Your task to perform on an android device: turn off translation in the chrome app Image 0: 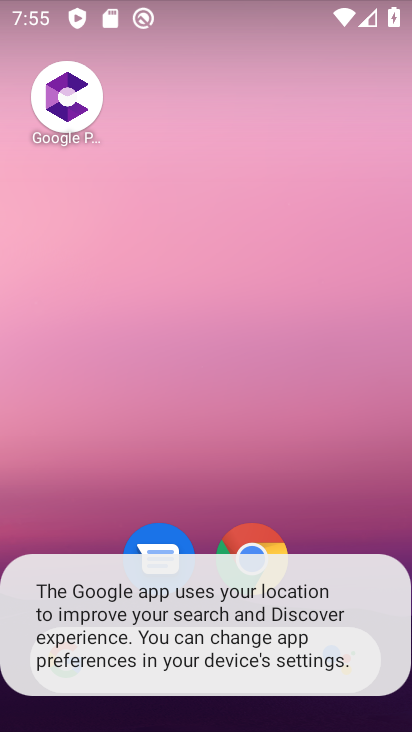
Step 0: click (262, 547)
Your task to perform on an android device: turn off translation in the chrome app Image 1: 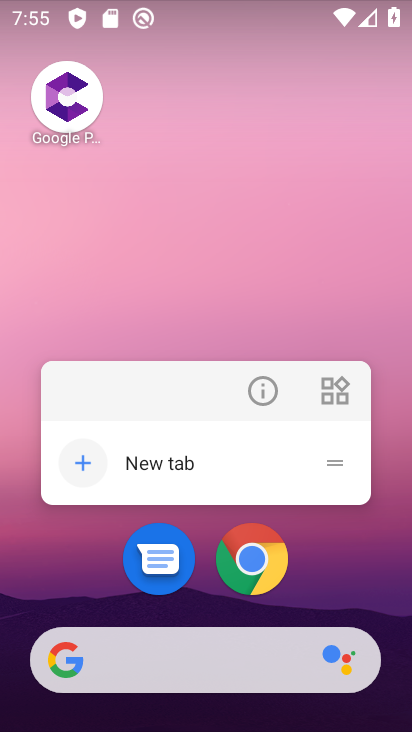
Step 1: click (245, 537)
Your task to perform on an android device: turn off translation in the chrome app Image 2: 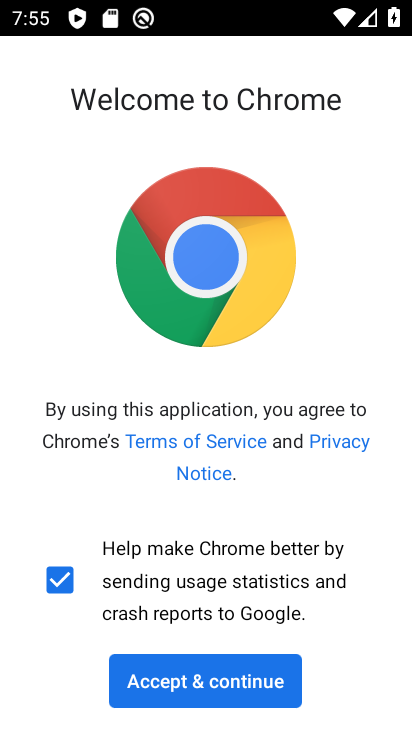
Step 2: click (189, 688)
Your task to perform on an android device: turn off translation in the chrome app Image 3: 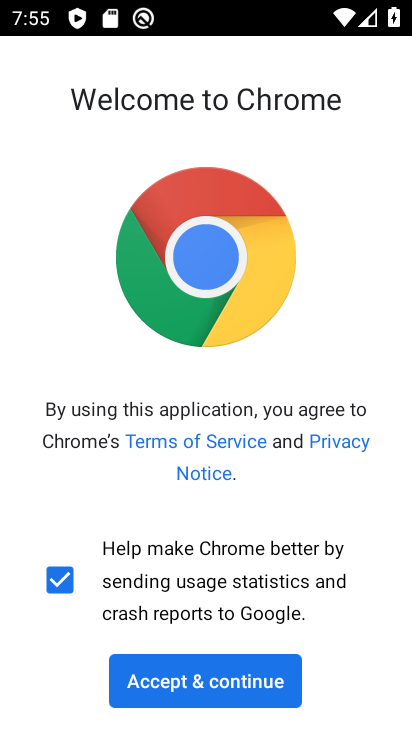
Step 3: click (189, 688)
Your task to perform on an android device: turn off translation in the chrome app Image 4: 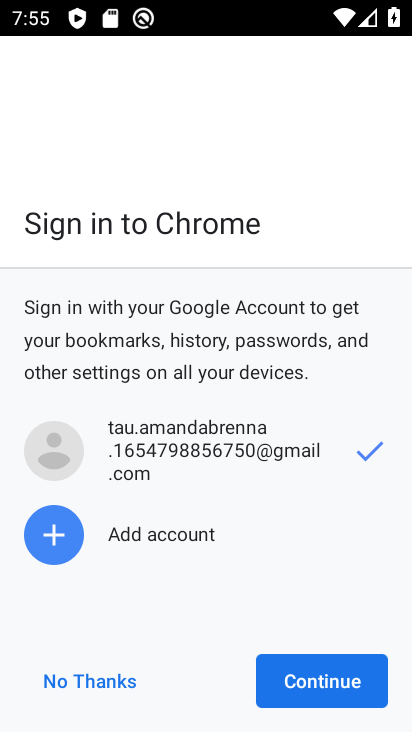
Step 4: click (98, 696)
Your task to perform on an android device: turn off translation in the chrome app Image 5: 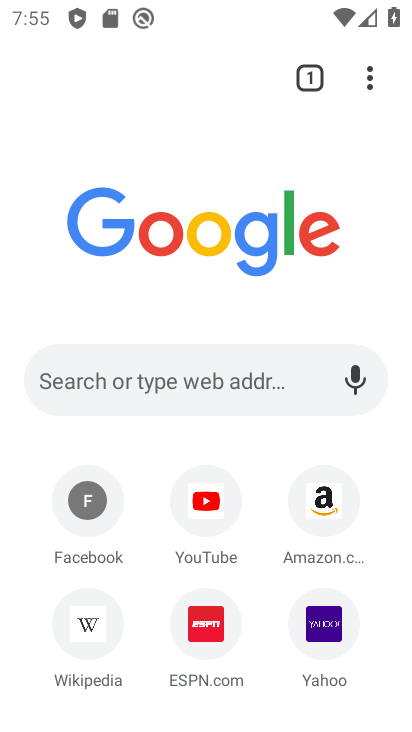
Step 5: click (377, 76)
Your task to perform on an android device: turn off translation in the chrome app Image 6: 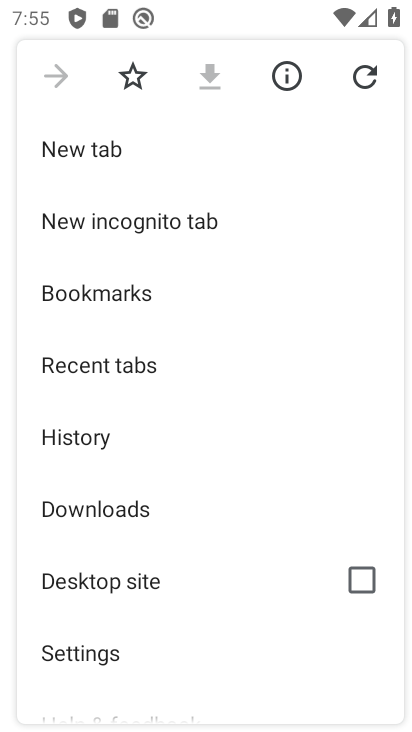
Step 6: click (113, 641)
Your task to perform on an android device: turn off translation in the chrome app Image 7: 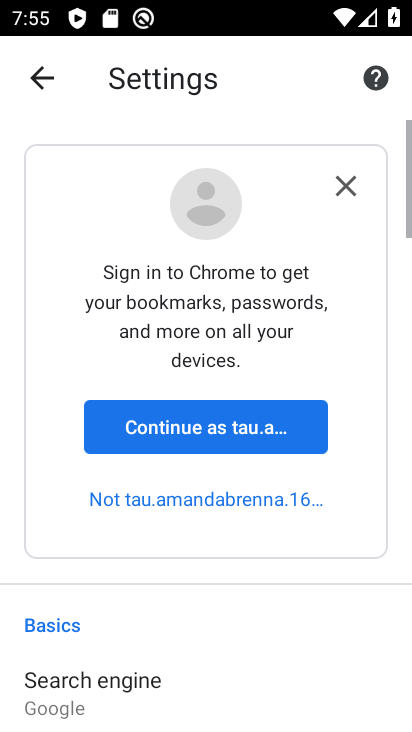
Step 7: drag from (141, 669) to (251, 72)
Your task to perform on an android device: turn off translation in the chrome app Image 8: 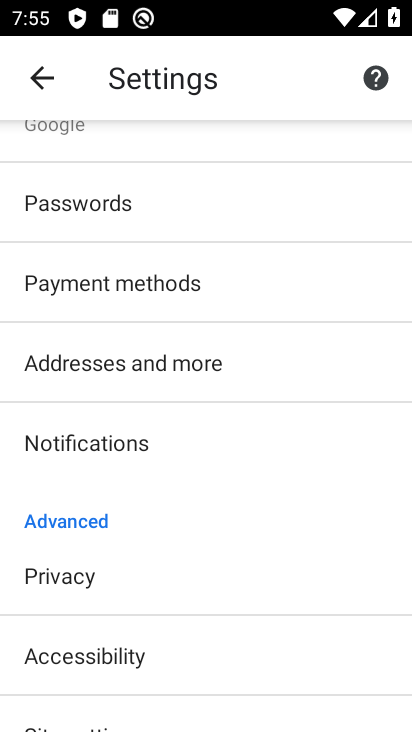
Step 8: drag from (140, 655) to (228, 335)
Your task to perform on an android device: turn off translation in the chrome app Image 9: 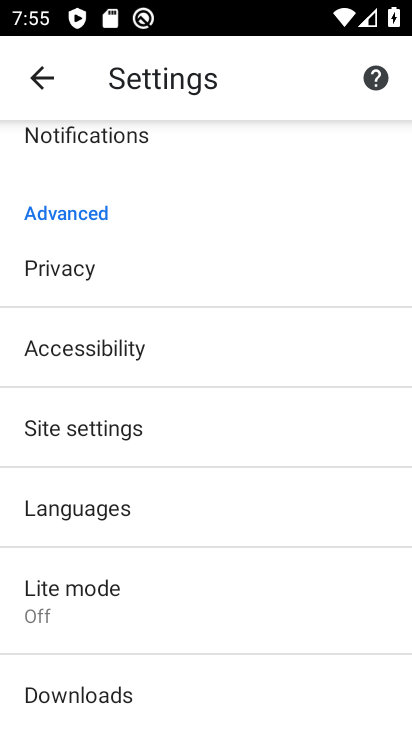
Step 9: click (141, 508)
Your task to perform on an android device: turn off translation in the chrome app Image 10: 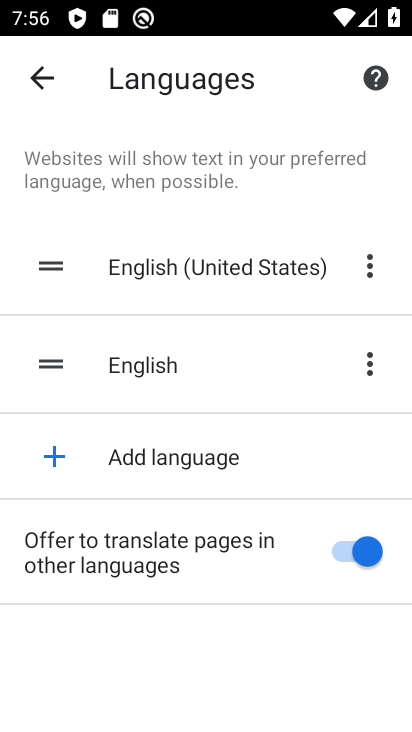
Step 10: click (376, 553)
Your task to perform on an android device: turn off translation in the chrome app Image 11: 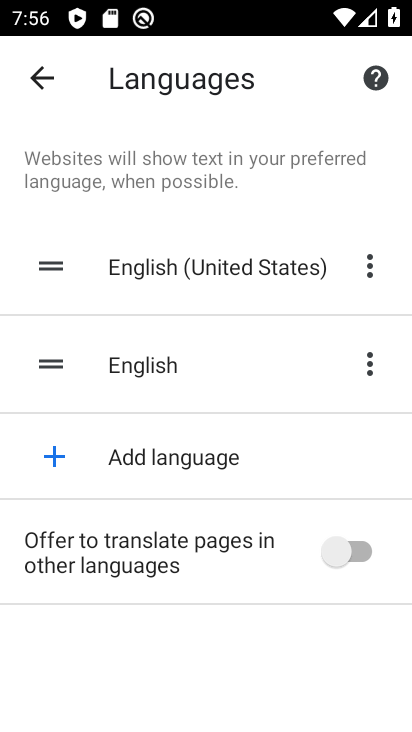
Step 11: task complete